Your task to perform on an android device: star an email in the gmail app Image 0: 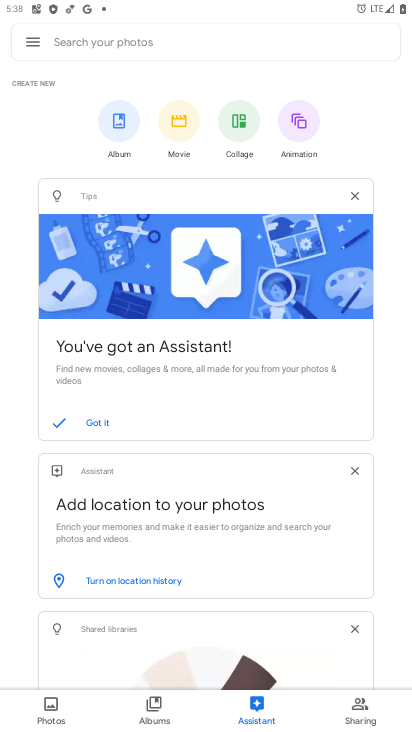
Step 0: press home button
Your task to perform on an android device: star an email in the gmail app Image 1: 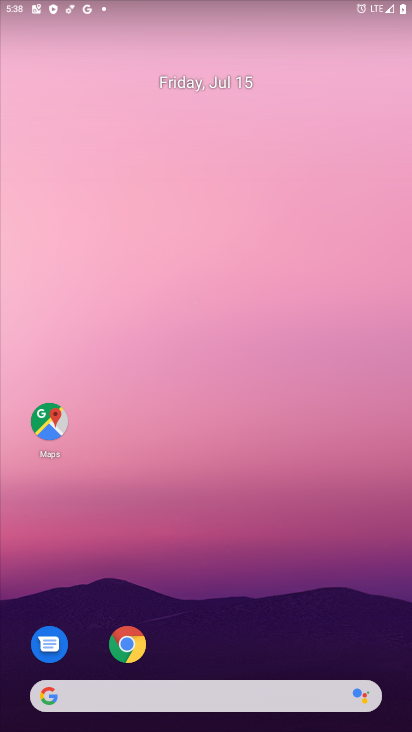
Step 1: drag from (204, 671) to (259, 164)
Your task to perform on an android device: star an email in the gmail app Image 2: 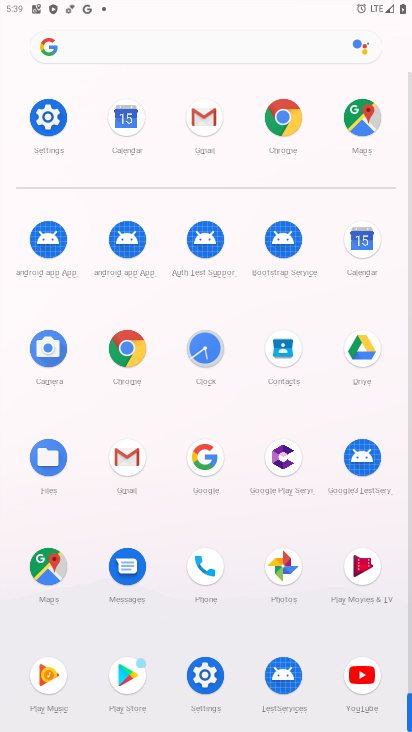
Step 2: click (128, 447)
Your task to perform on an android device: star an email in the gmail app Image 3: 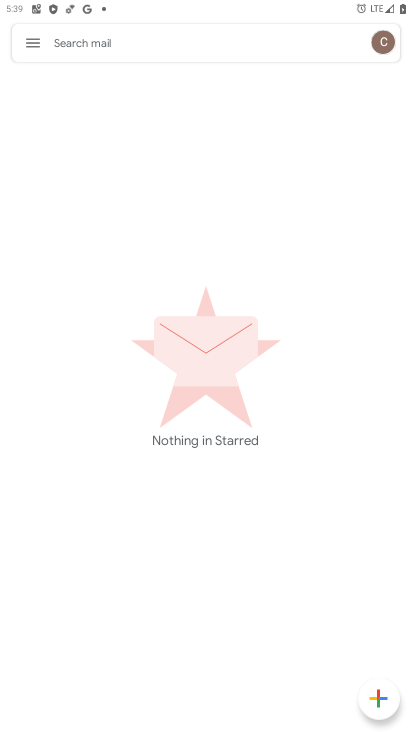
Step 3: click (41, 47)
Your task to perform on an android device: star an email in the gmail app Image 4: 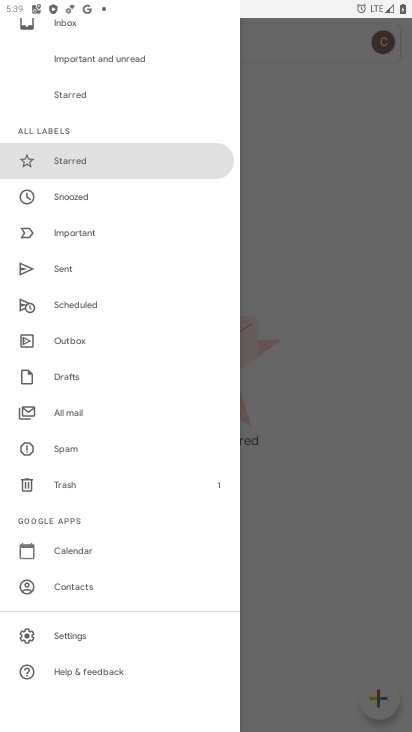
Step 4: drag from (113, 210) to (82, 372)
Your task to perform on an android device: star an email in the gmail app Image 5: 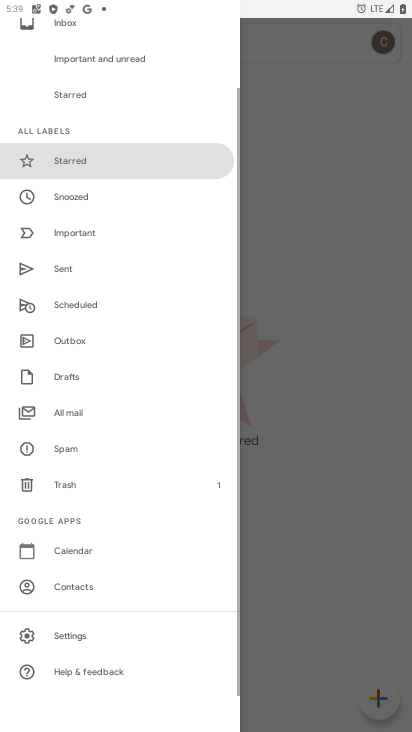
Step 5: click (85, 419)
Your task to perform on an android device: star an email in the gmail app Image 6: 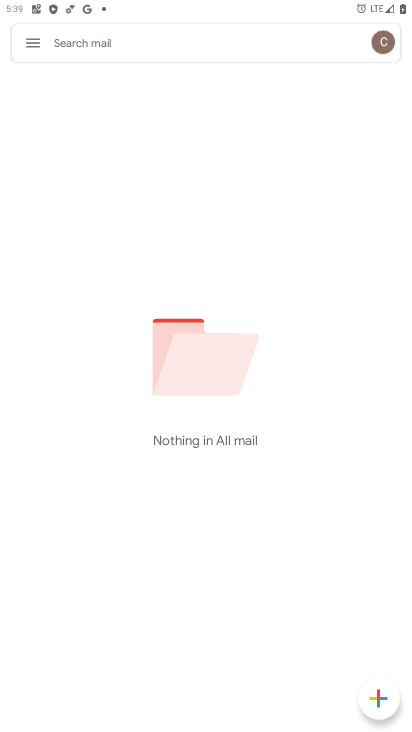
Step 6: task complete